Your task to perform on an android device: turn pop-ups off in chrome Image 0: 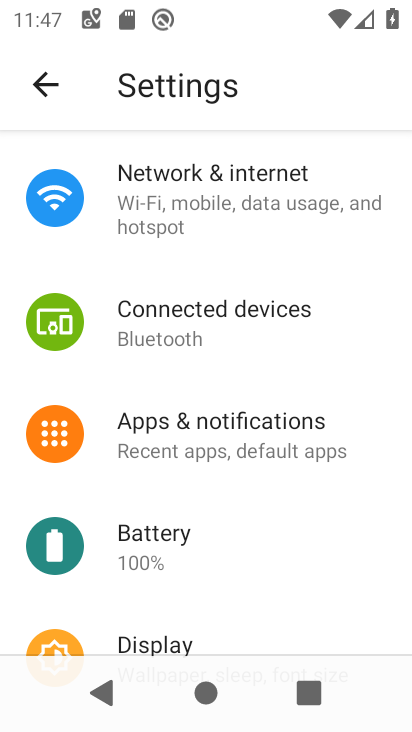
Step 0: press home button
Your task to perform on an android device: turn pop-ups off in chrome Image 1: 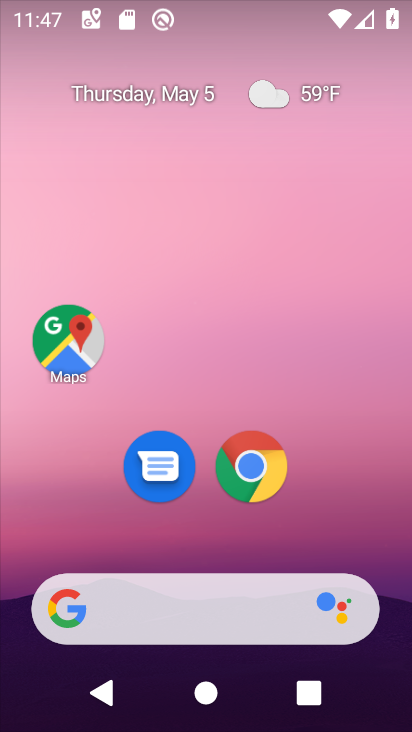
Step 1: click (268, 451)
Your task to perform on an android device: turn pop-ups off in chrome Image 2: 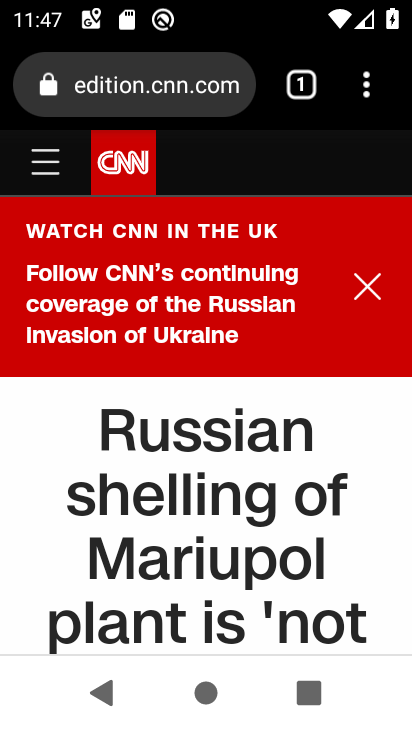
Step 2: drag from (372, 92) to (169, 507)
Your task to perform on an android device: turn pop-ups off in chrome Image 3: 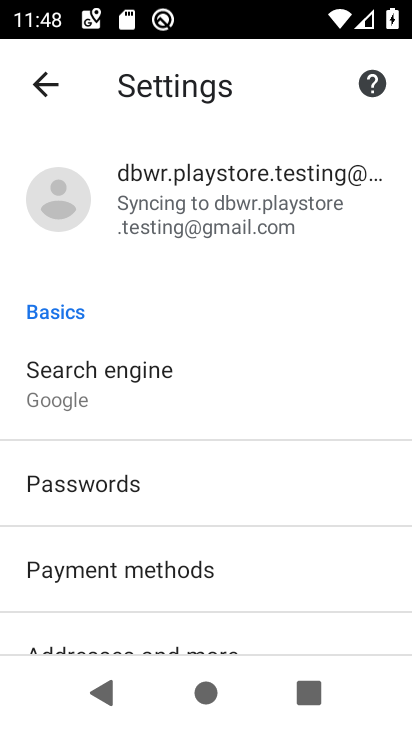
Step 3: drag from (271, 593) to (265, 218)
Your task to perform on an android device: turn pop-ups off in chrome Image 4: 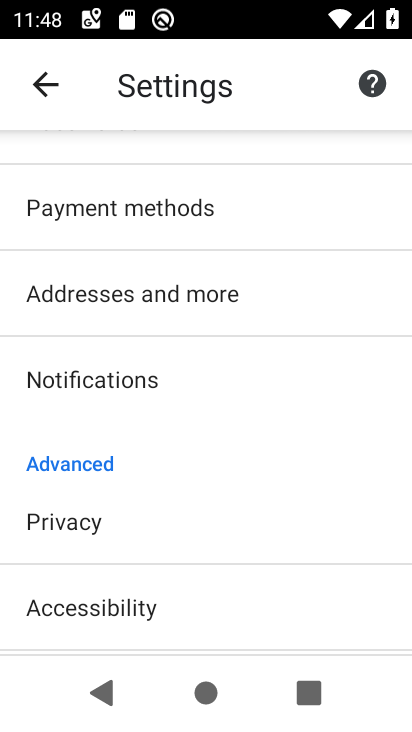
Step 4: drag from (320, 585) to (306, 302)
Your task to perform on an android device: turn pop-ups off in chrome Image 5: 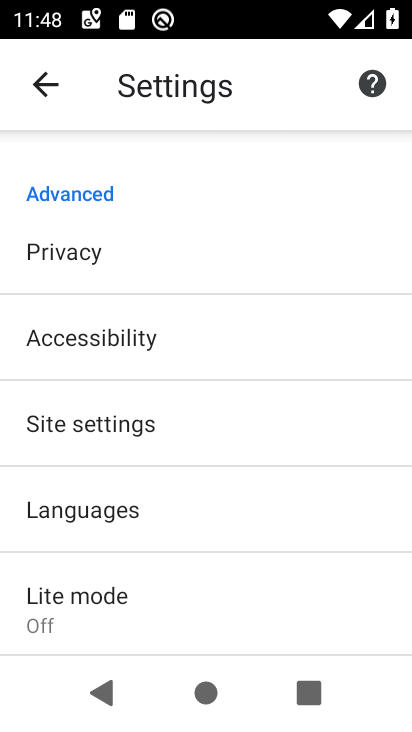
Step 5: click (295, 434)
Your task to perform on an android device: turn pop-ups off in chrome Image 6: 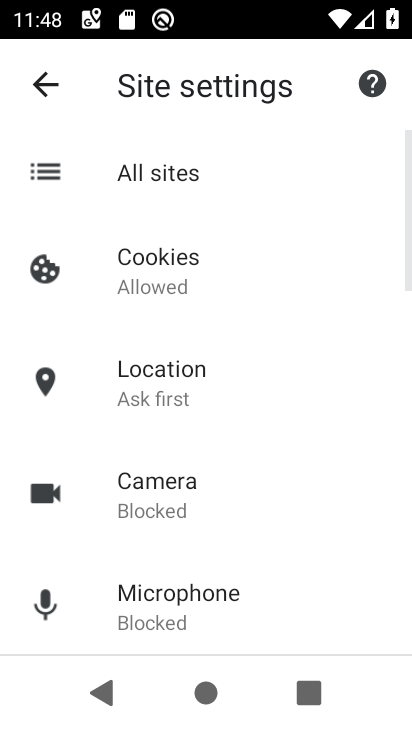
Step 6: drag from (316, 571) to (300, 308)
Your task to perform on an android device: turn pop-ups off in chrome Image 7: 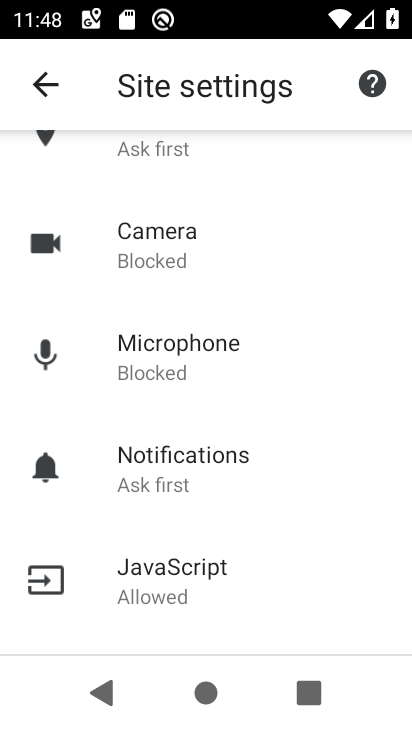
Step 7: drag from (269, 522) to (260, 229)
Your task to perform on an android device: turn pop-ups off in chrome Image 8: 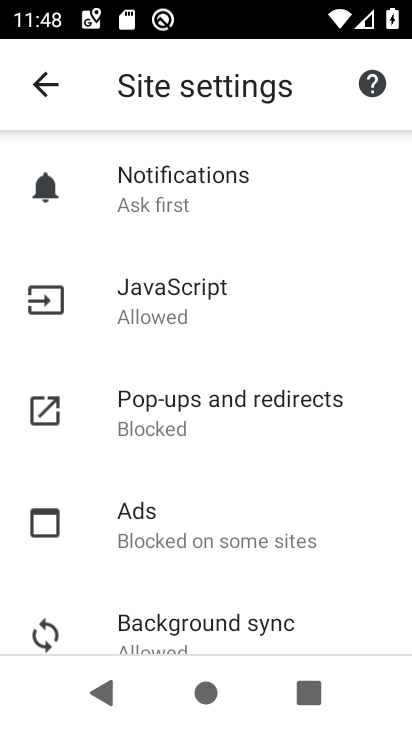
Step 8: click (269, 407)
Your task to perform on an android device: turn pop-ups off in chrome Image 9: 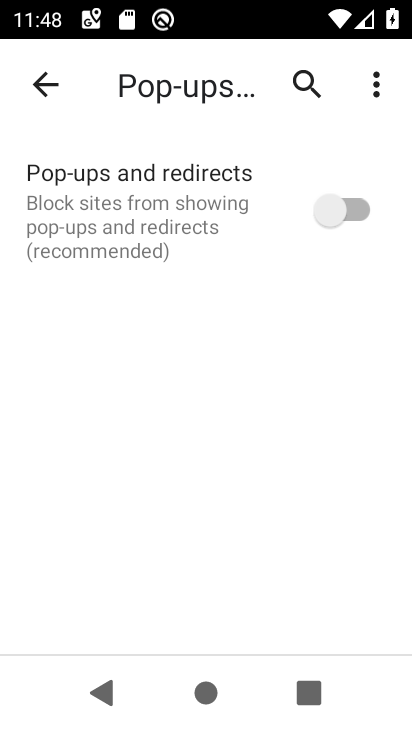
Step 9: task complete